Your task to perform on an android device: turn off improve location accuracy Image 0: 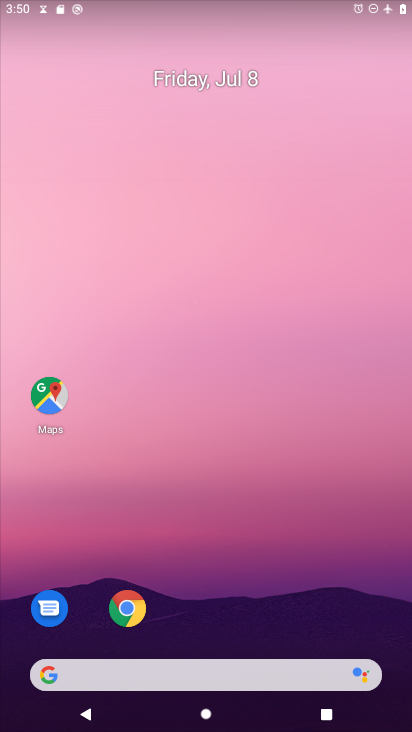
Step 0: drag from (234, 645) to (279, 6)
Your task to perform on an android device: turn off improve location accuracy Image 1: 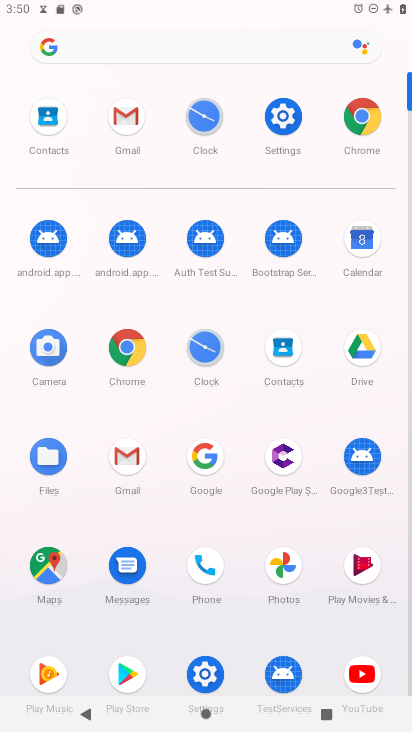
Step 1: click (294, 118)
Your task to perform on an android device: turn off improve location accuracy Image 2: 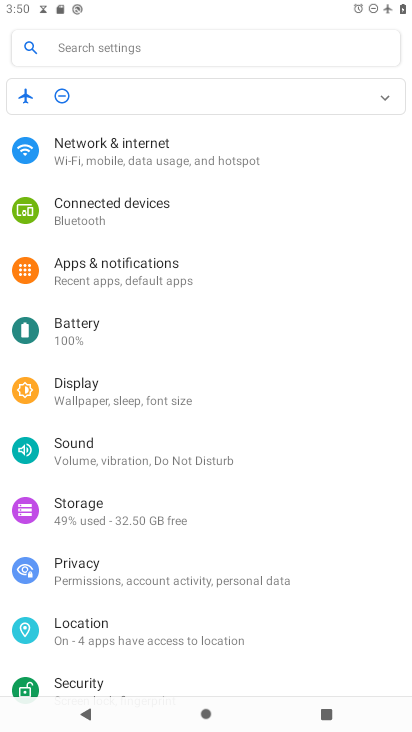
Step 2: click (161, 638)
Your task to perform on an android device: turn off improve location accuracy Image 3: 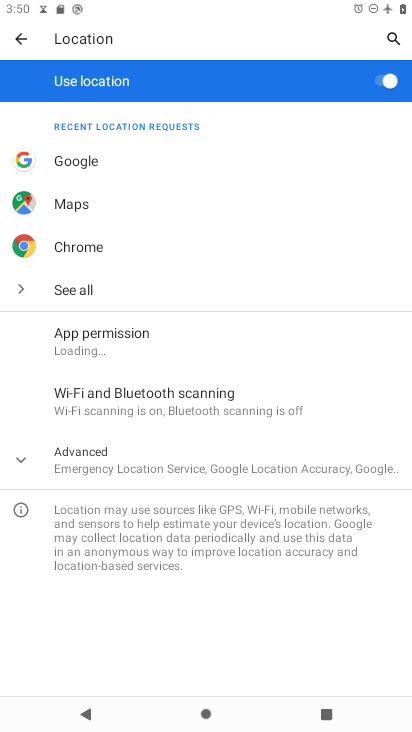
Step 3: click (138, 468)
Your task to perform on an android device: turn off improve location accuracy Image 4: 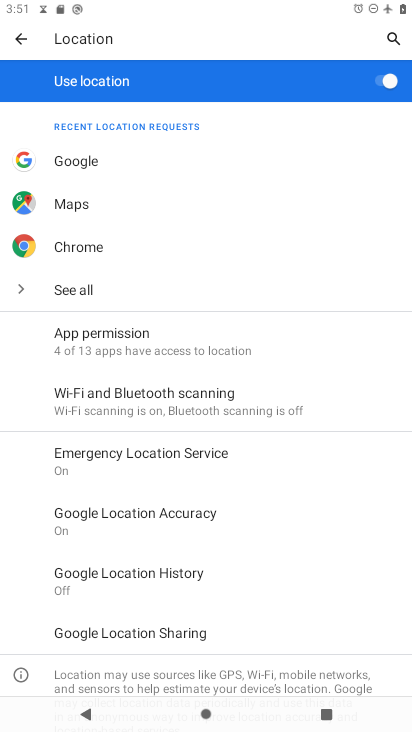
Step 4: click (130, 531)
Your task to perform on an android device: turn off improve location accuracy Image 5: 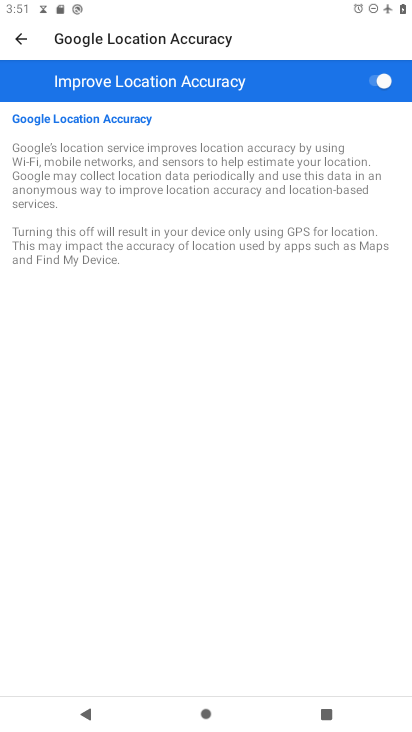
Step 5: click (381, 83)
Your task to perform on an android device: turn off improve location accuracy Image 6: 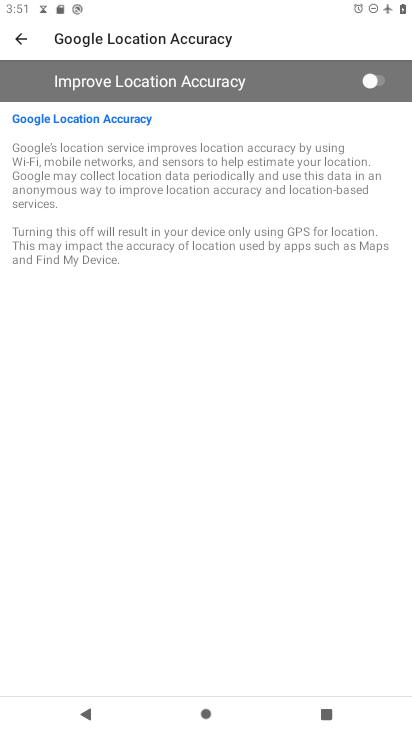
Step 6: task complete